Your task to perform on an android device: What is the news today? Image 0: 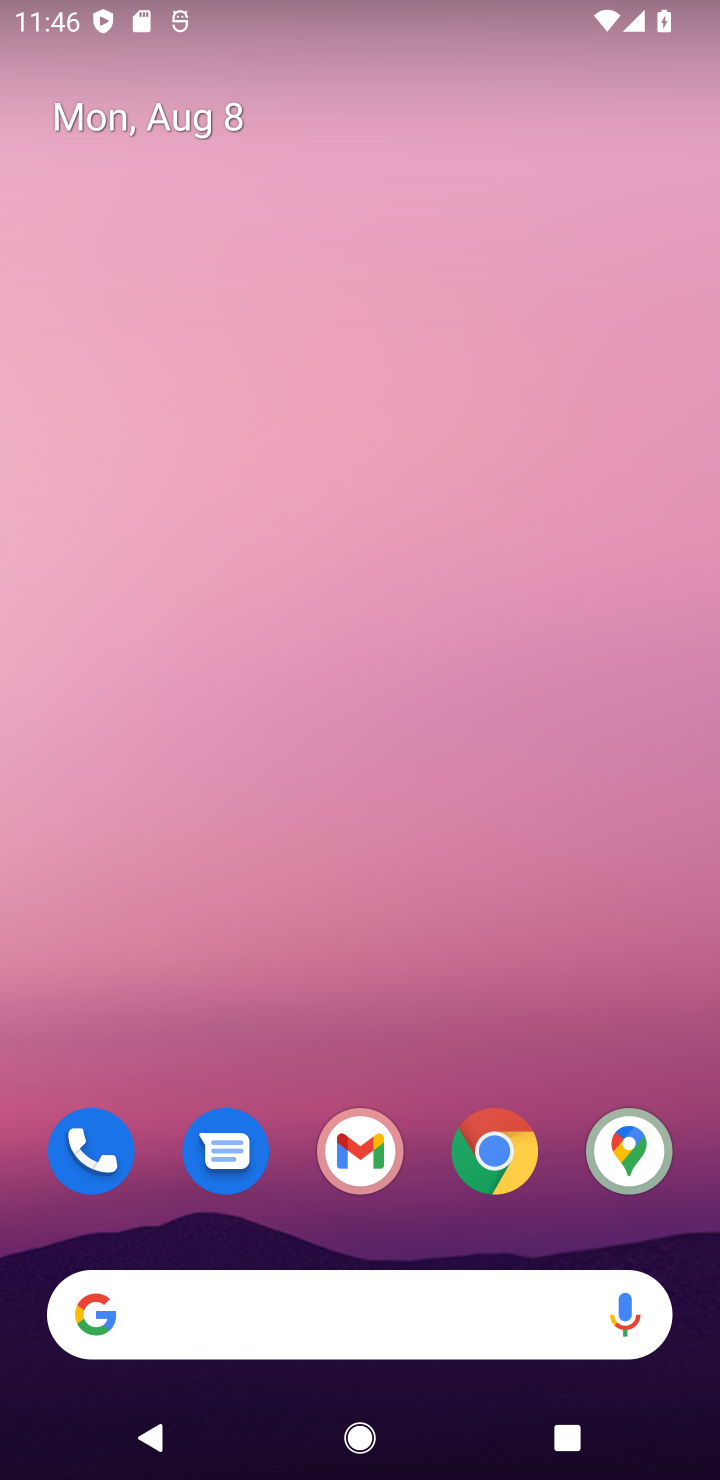
Step 0: drag from (395, 1183) to (297, 724)
Your task to perform on an android device: What is the news today? Image 1: 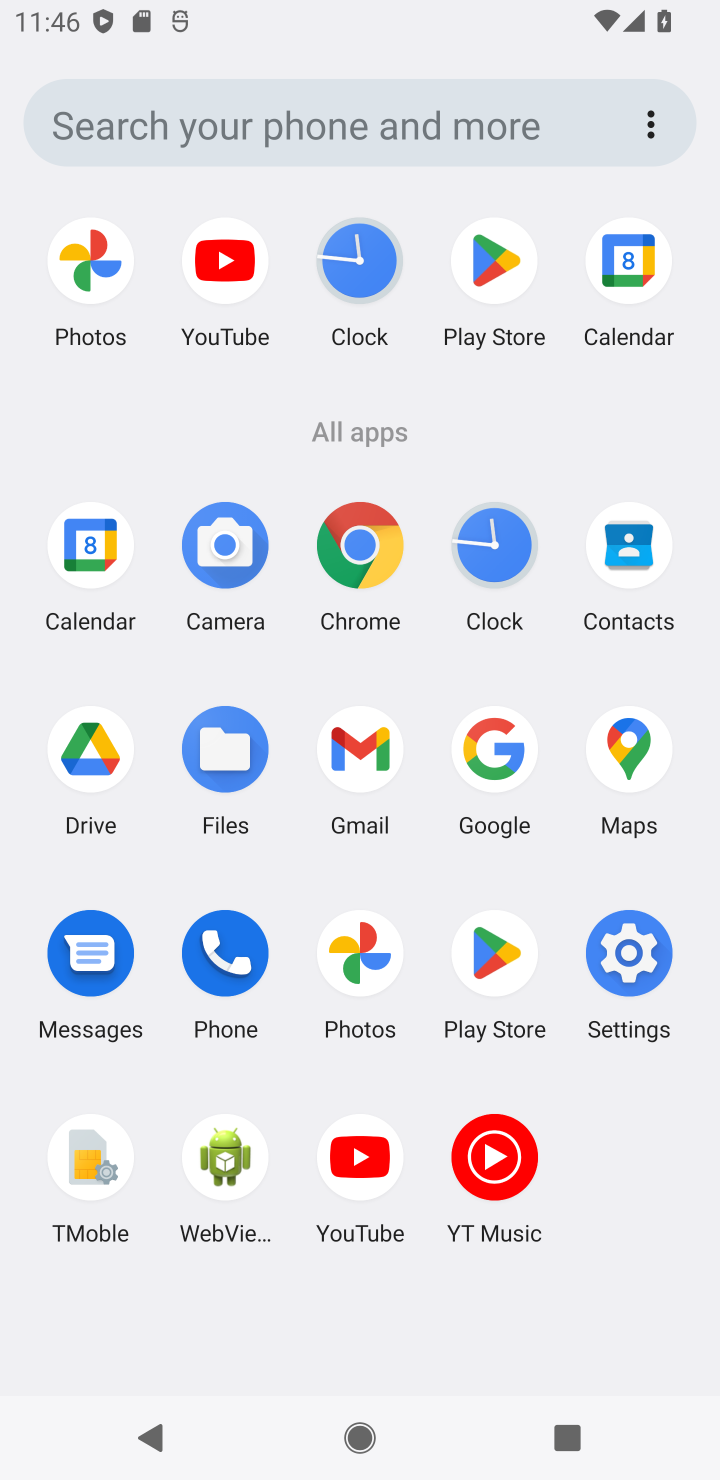
Step 1: click (493, 739)
Your task to perform on an android device: What is the news today? Image 2: 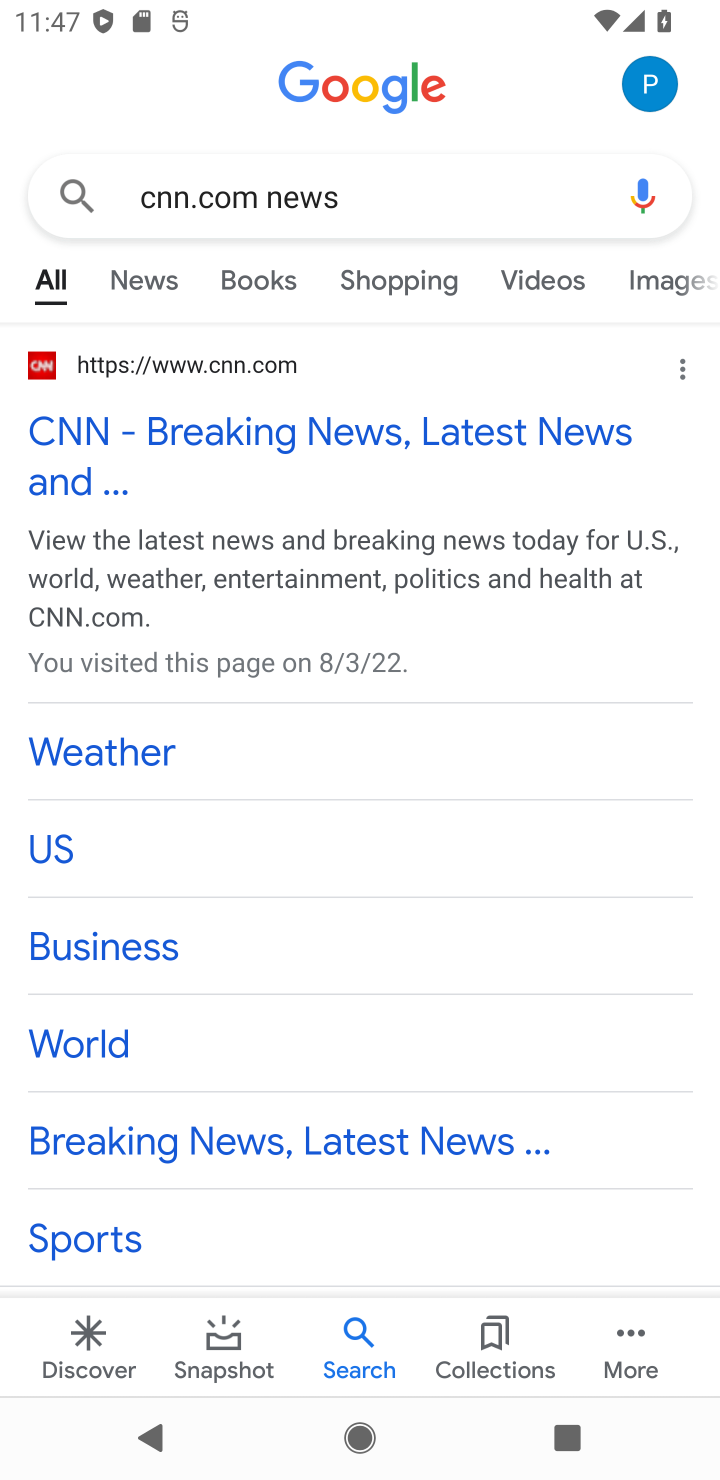
Step 2: click (373, 201)
Your task to perform on an android device: What is the news today? Image 3: 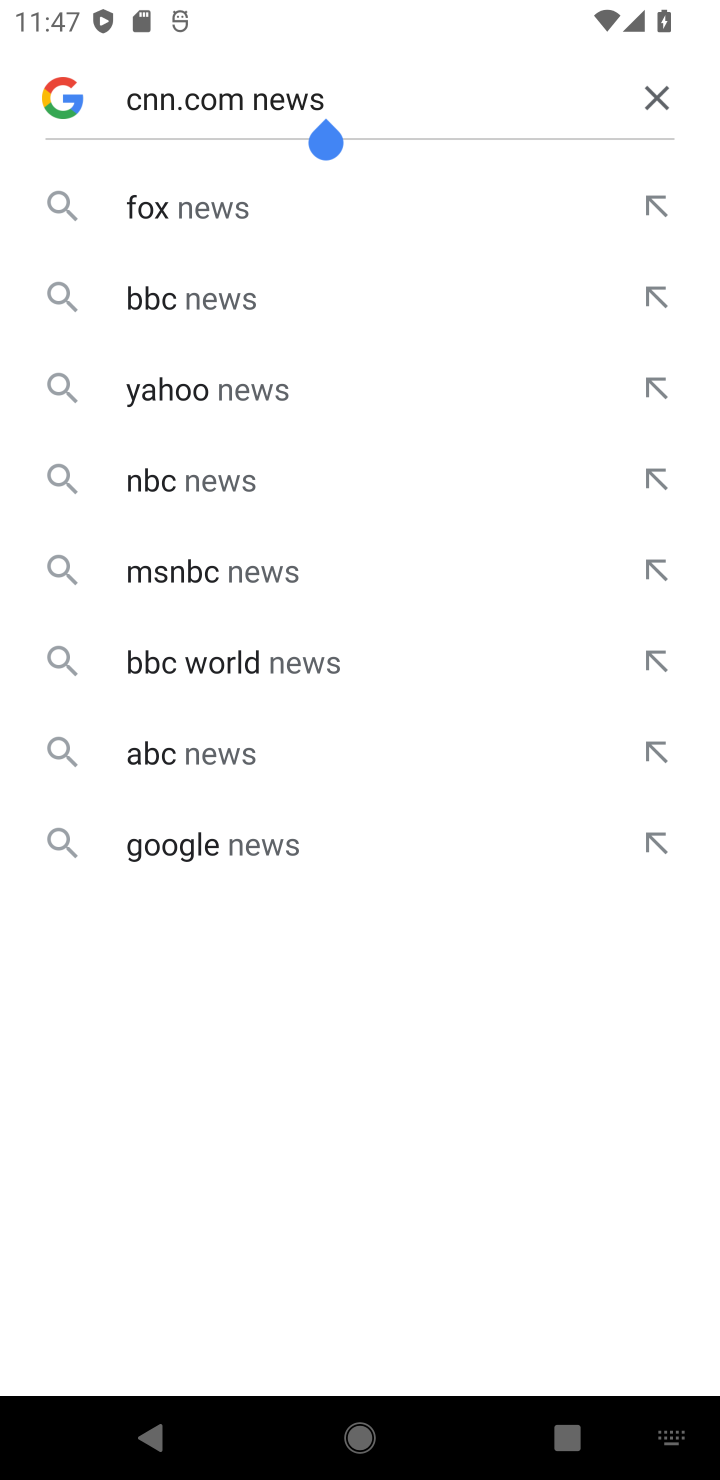
Step 3: click (675, 90)
Your task to perform on an android device: What is the news today? Image 4: 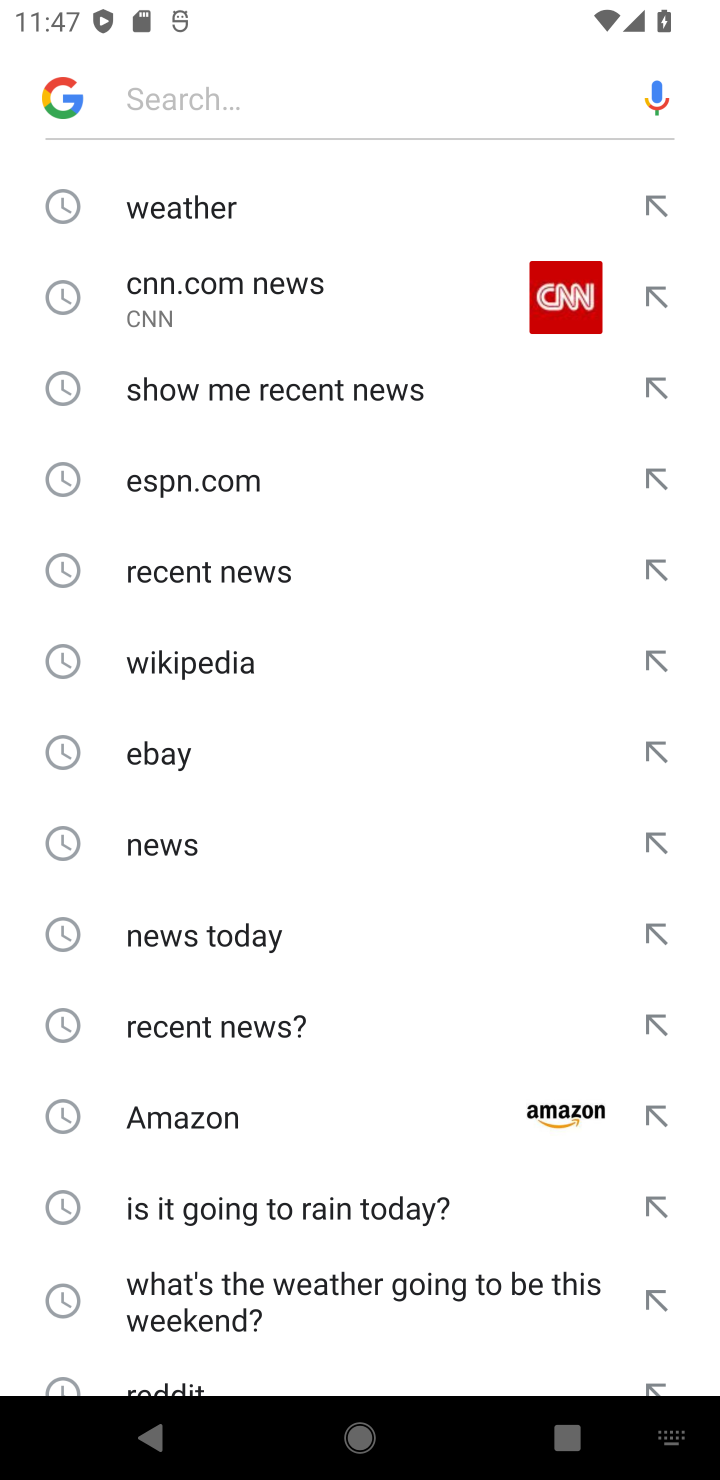
Step 4: click (222, 564)
Your task to perform on an android device: What is the news today? Image 5: 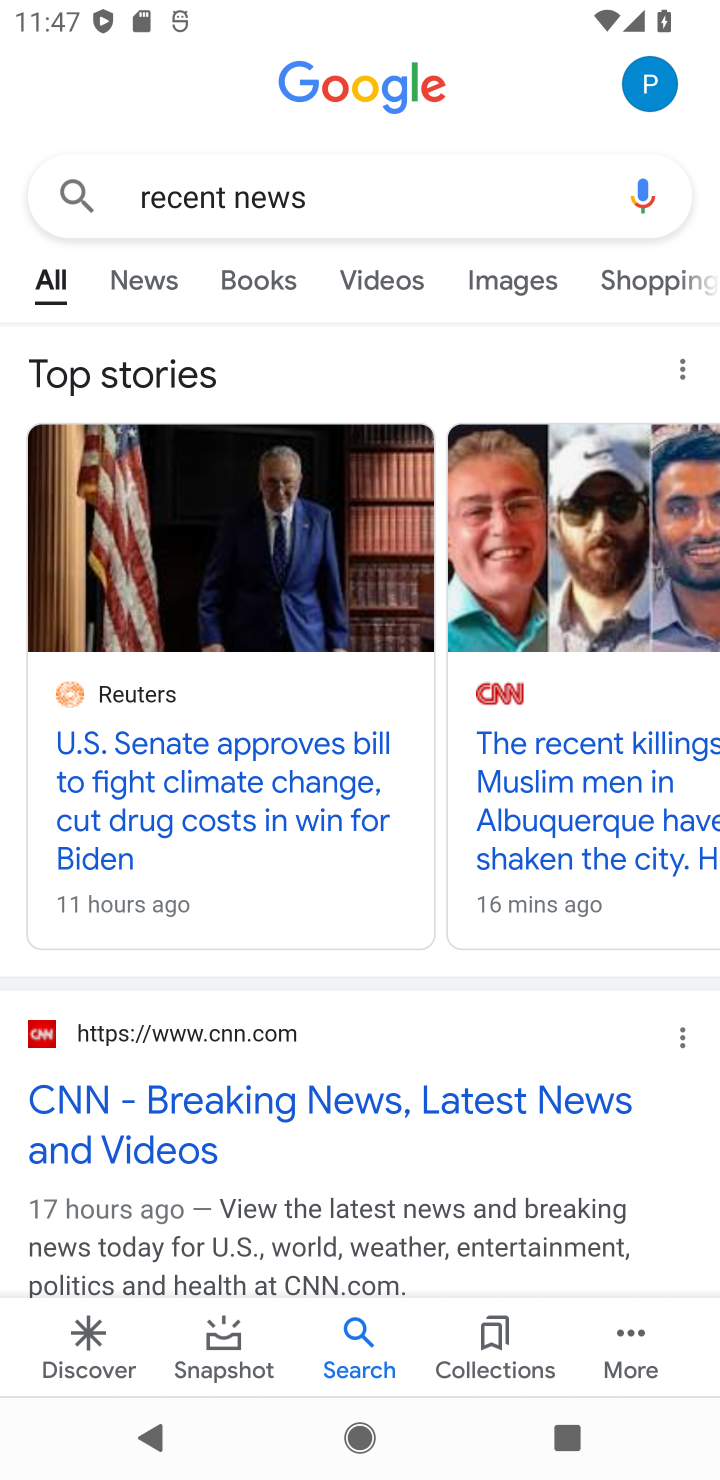
Step 5: click (401, 1092)
Your task to perform on an android device: What is the news today? Image 6: 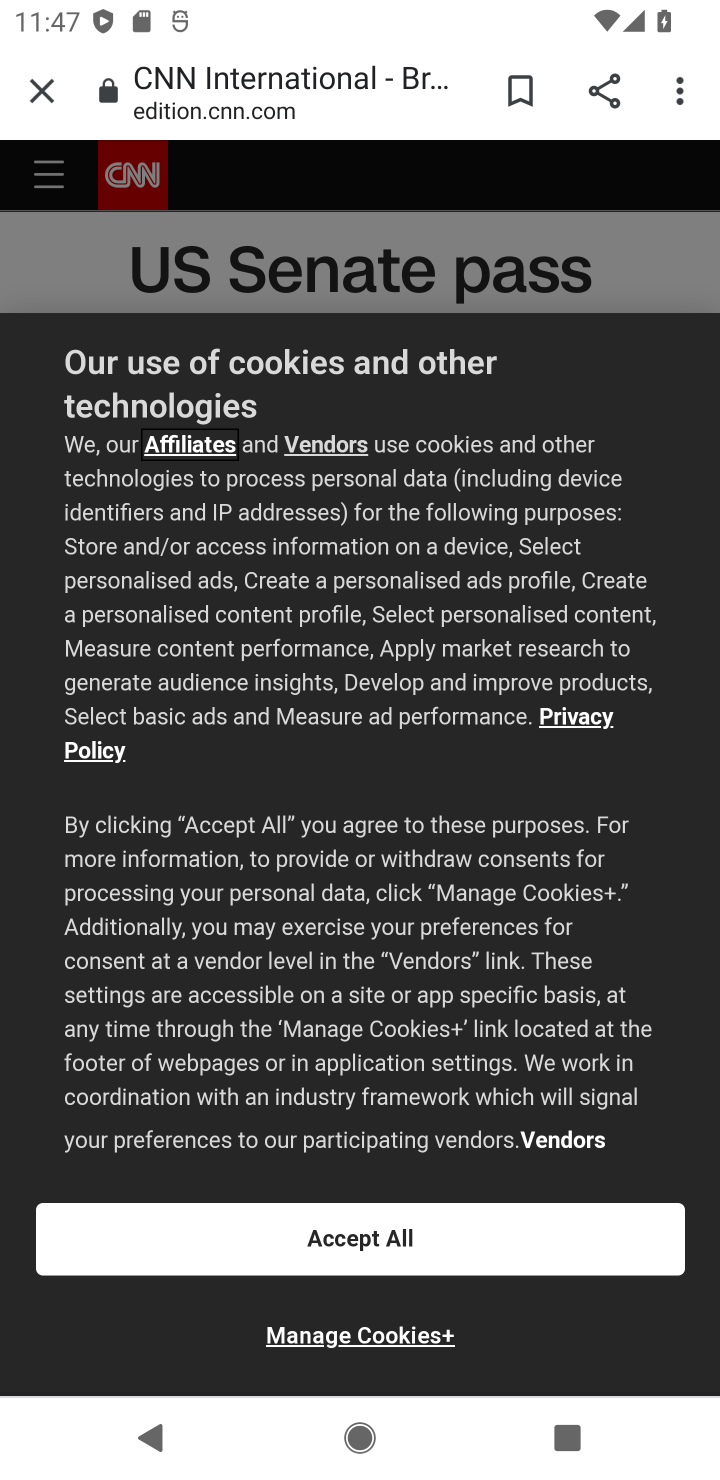
Step 6: task complete